Your task to perform on an android device: turn off smart reply in the gmail app Image 0: 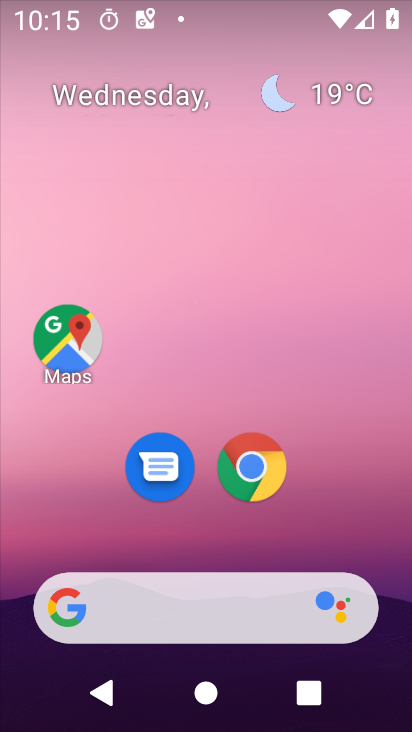
Step 0: drag from (248, 289) to (134, 0)
Your task to perform on an android device: turn off smart reply in the gmail app Image 1: 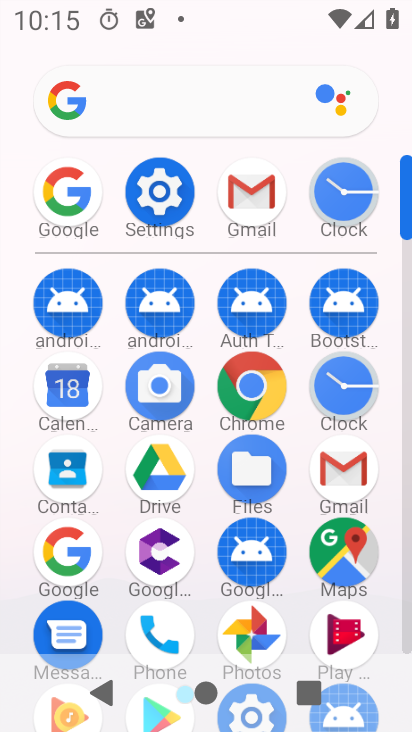
Step 1: click (251, 195)
Your task to perform on an android device: turn off smart reply in the gmail app Image 2: 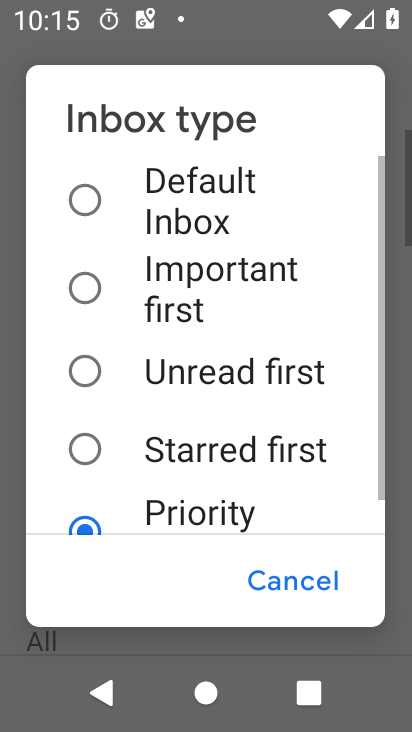
Step 2: click (287, 571)
Your task to perform on an android device: turn off smart reply in the gmail app Image 3: 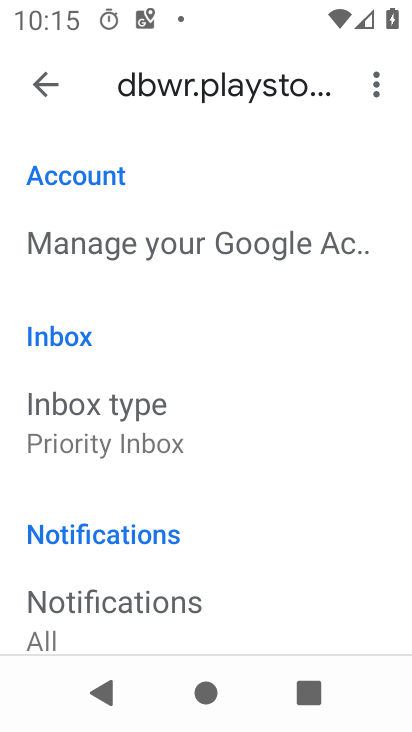
Step 3: drag from (250, 533) to (206, 148)
Your task to perform on an android device: turn off smart reply in the gmail app Image 4: 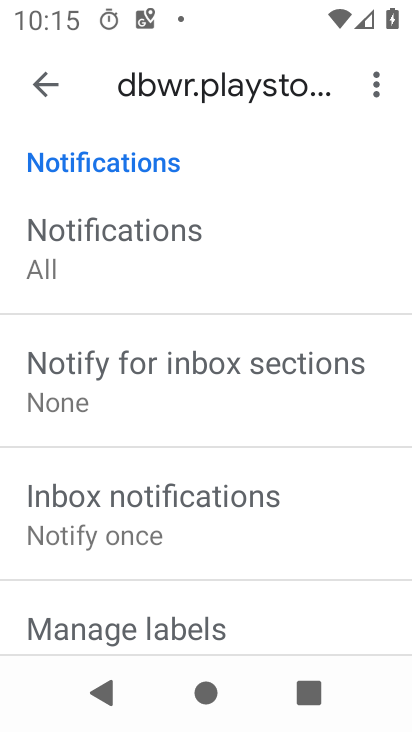
Step 4: drag from (236, 544) to (223, 132)
Your task to perform on an android device: turn off smart reply in the gmail app Image 5: 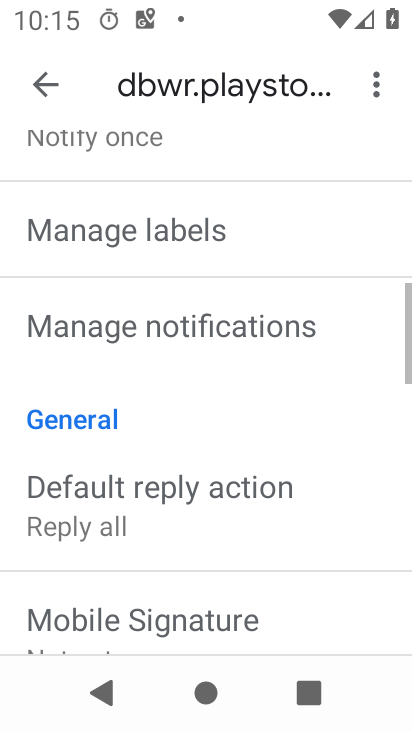
Step 5: drag from (209, 500) to (226, 116)
Your task to perform on an android device: turn off smart reply in the gmail app Image 6: 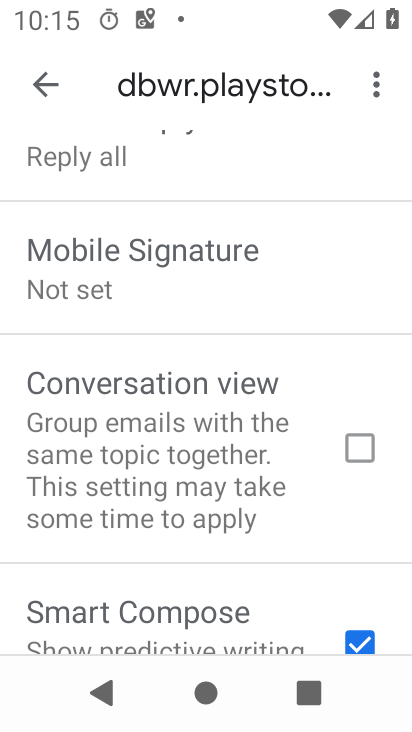
Step 6: drag from (231, 581) to (221, 179)
Your task to perform on an android device: turn off smart reply in the gmail app Image 7: 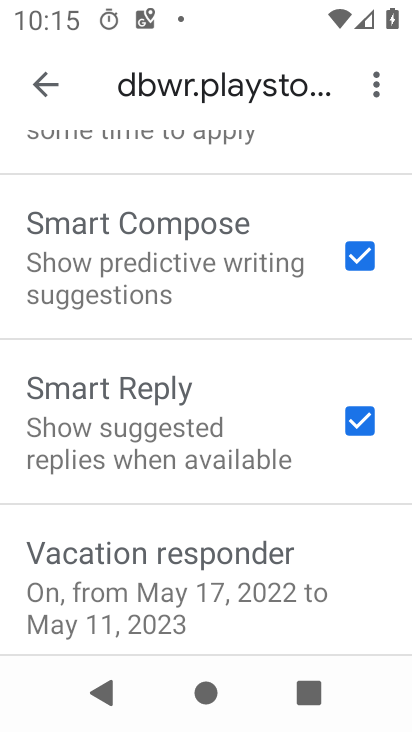
Step 7: click (366, 407)
Your task to perform on an android device: turn off smart reply in the gmail app Image 8: 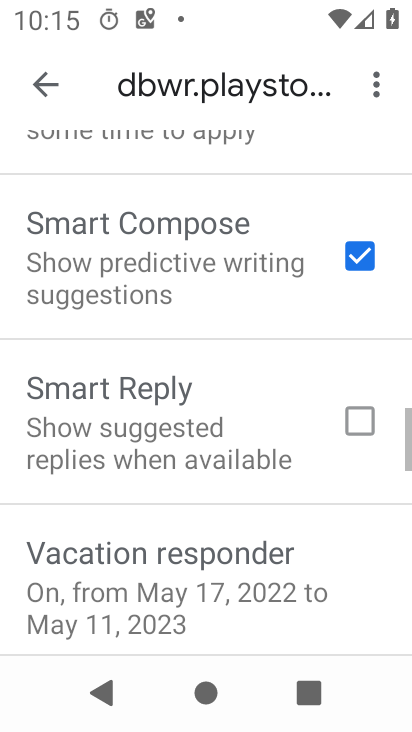
Step 8: task complete